Your task to perform on an android device: open app "Clock" (install if not already installed) Image 0: 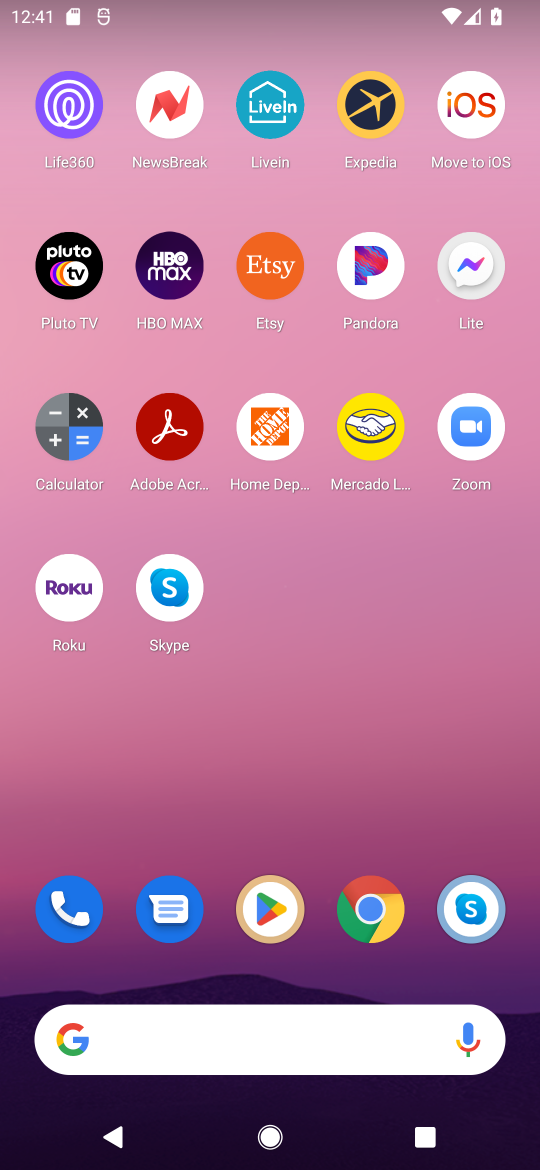
Step 0: drag from (270, 680) to (341, 5)
Your task to perform on an android device: open app "Clock" (install if not already installed) Image 1: 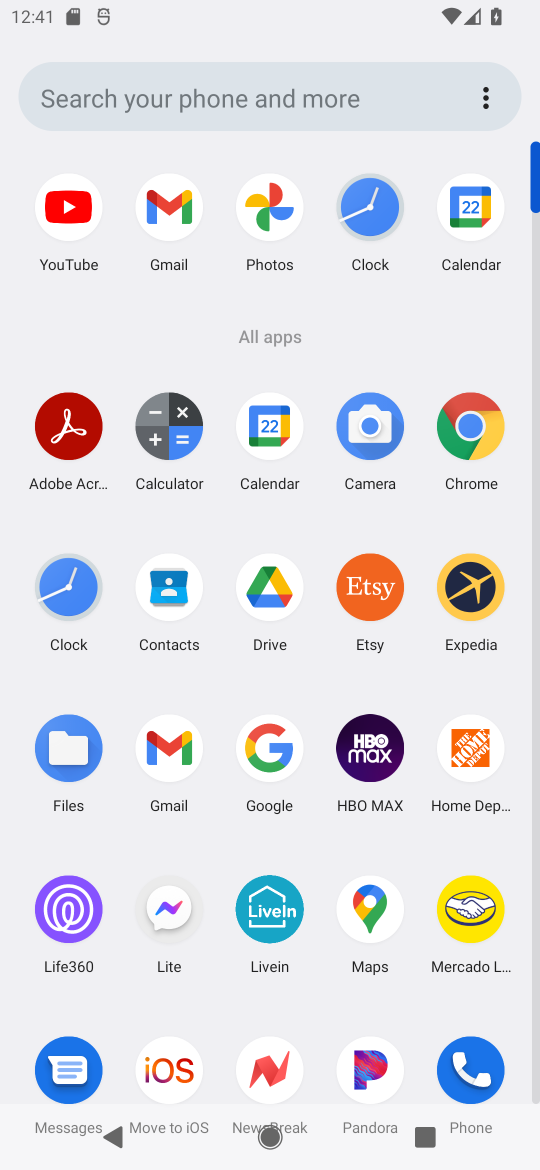
Step 1: click (360, 207)
Your task to perform on an android device: open app "Clock" (install if not already installed) Image 2: 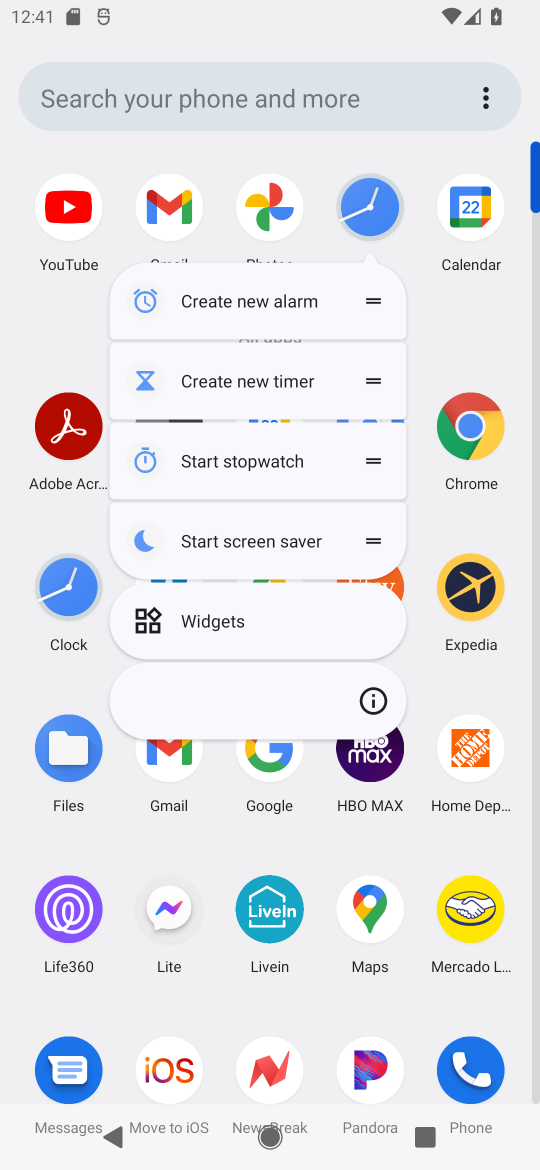
Step 2: click (372, 199)
Your task to perform on an android device: open app "Clock" (install if not already installed) Image 3: 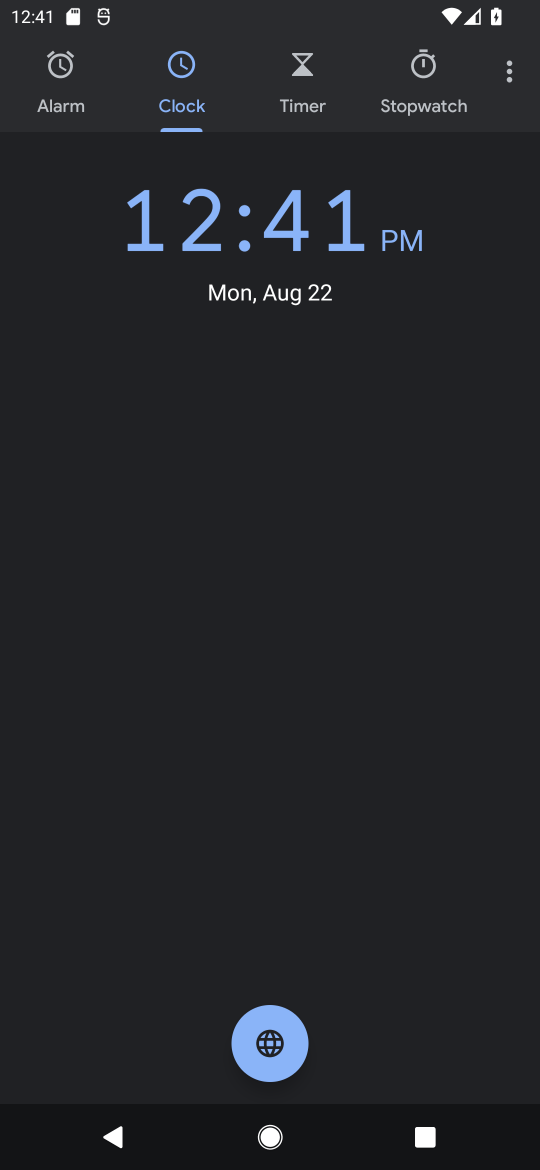
Step 3: task complete